Your task to perform on an android device: delete browsing data in the chrome app Image 0: 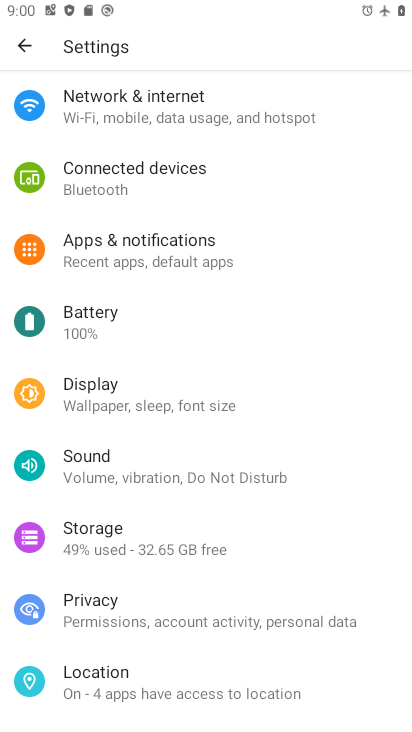
Step 0: press home button
Your task to perform on an android device: delete browsing data in the chrome app Image 1: 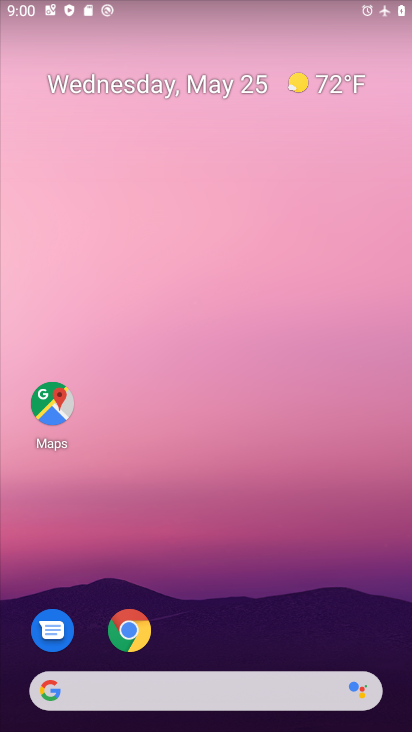
Step 1: click (131, 615)
Your task to perform on an android device: delete browsing data in the chrome app Image 2: 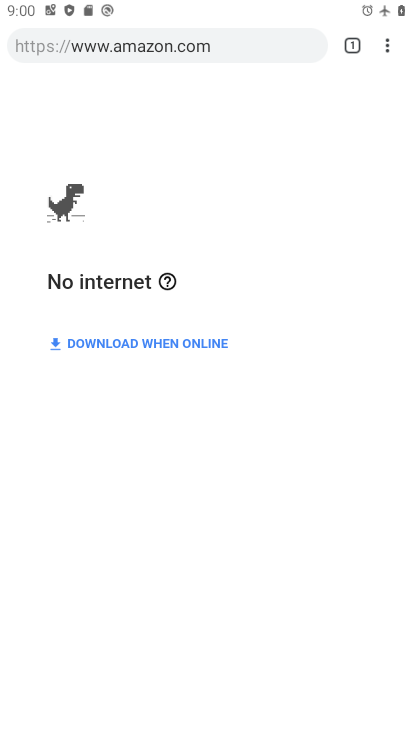
Step 2: drag from (379, 52) to (215, 265)
Your task to perform on an android device: delete browsing data in the chrome app Image 3: 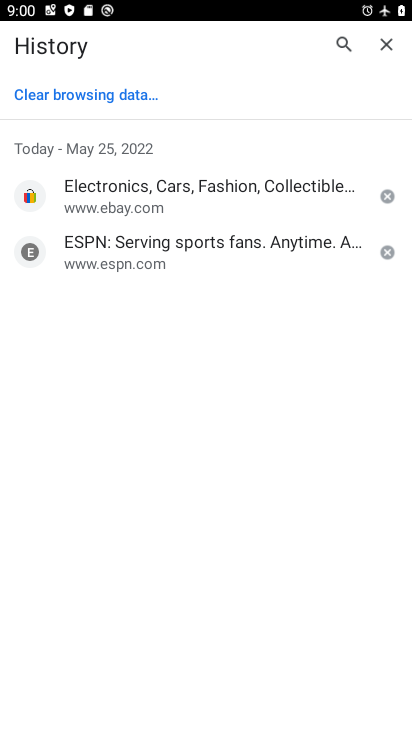
Step 3: click (93, 100)
Your task to perform on an android device: delete browsing data in the chrome app Image 4: 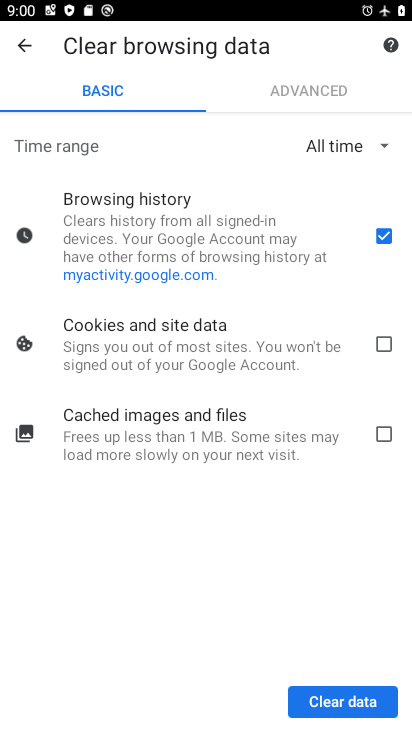
Step 4: click (379, 343)
Your task to perform on an android device: delete browsing data in the chrome app Image 5: 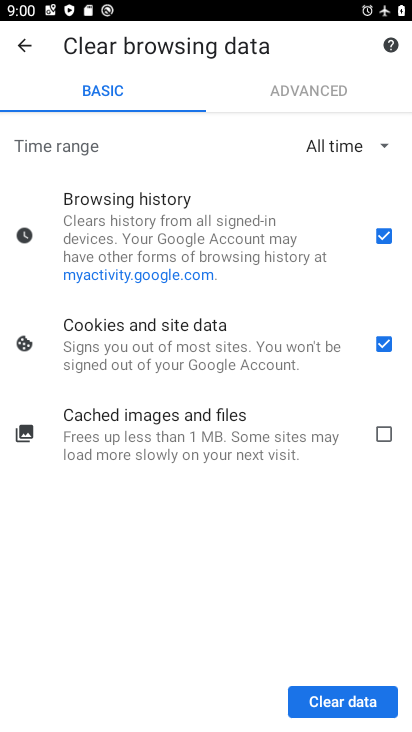
Step 5: click (381, 437)
Your task to perform on an android device: delete browsing data in the chrome app Image 6: 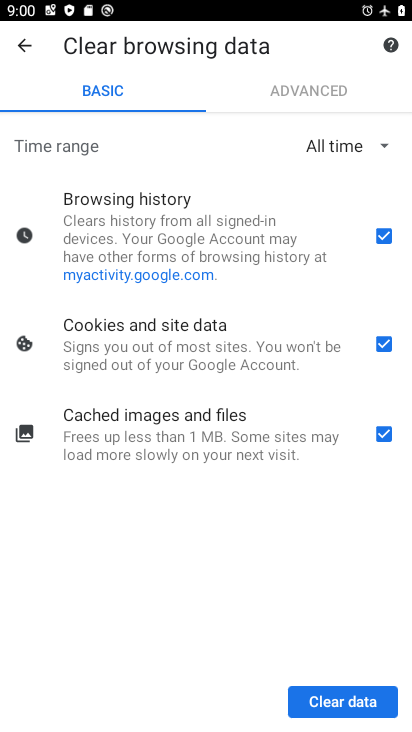
Step 6: click (364, 690)
Your task to perform on an android device: delete browsing data in the chrome app Image 7: 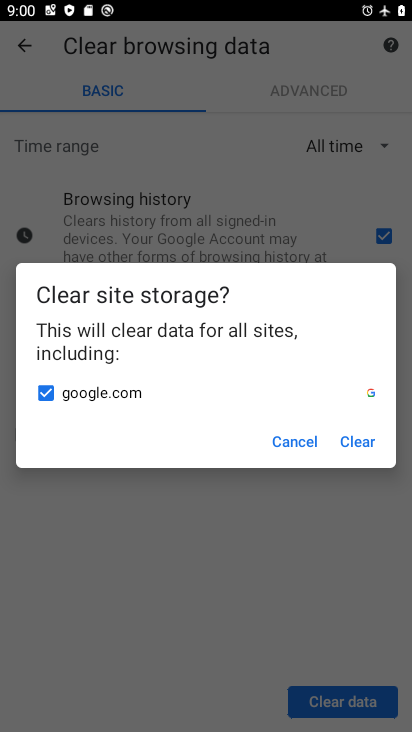
Step 7: click (371, 437)
Your task to perform on an android device: delete browsing data in the chrome app Image 8: 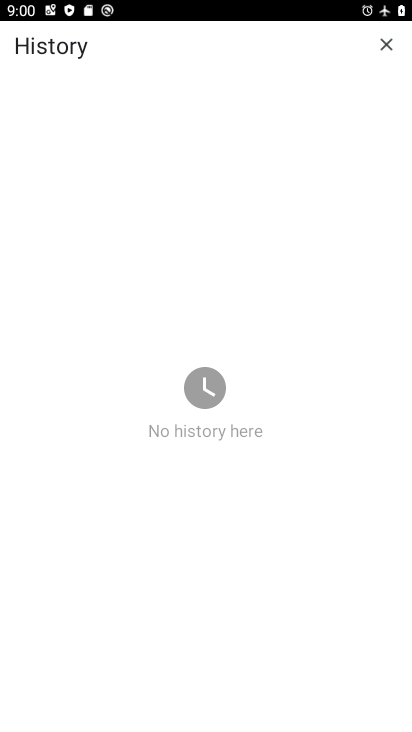
Step 8: task complete